Your task to perform on an android device: Open privacy settings Image 0: 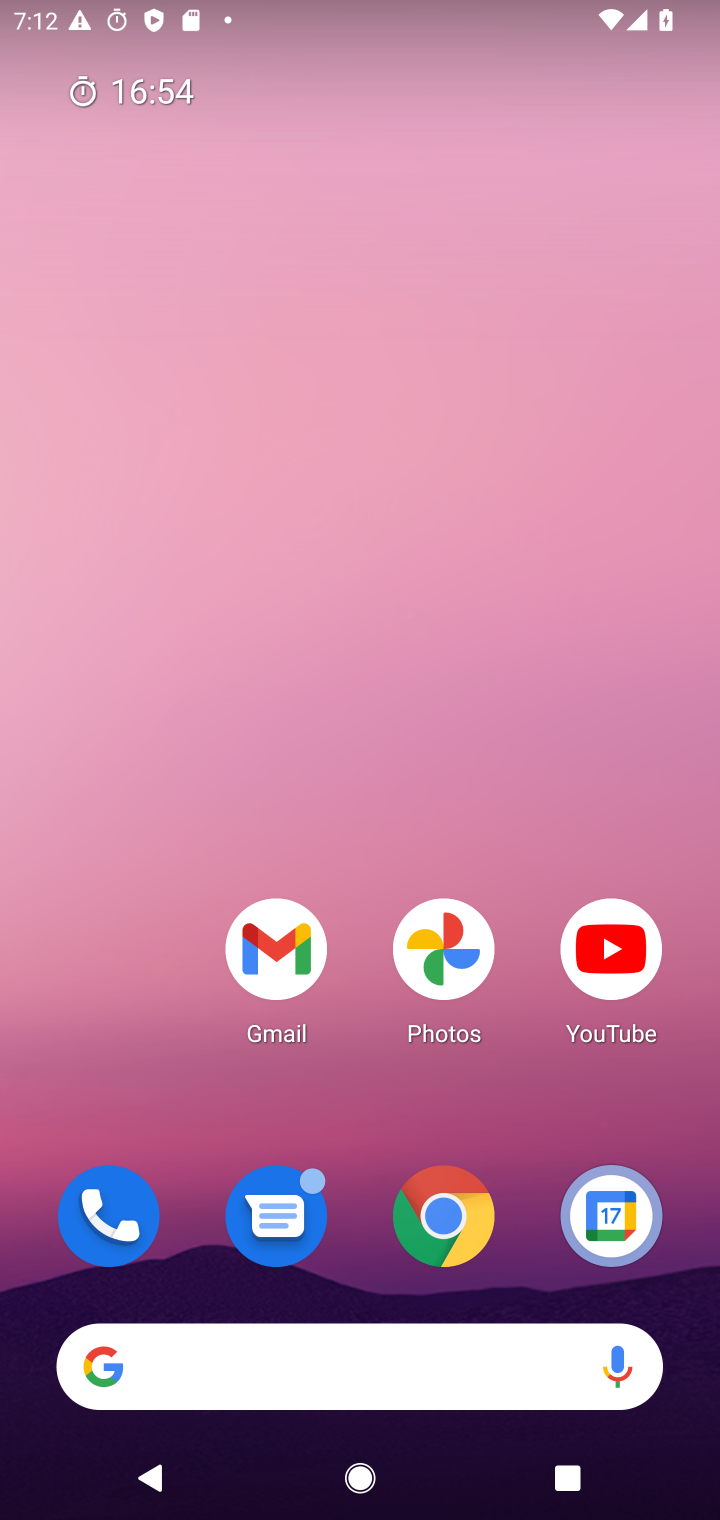
Step 0: drag from (528, 1008) to (508, 57)
Your task to perform on an android device: Open privacy settings Image 1: 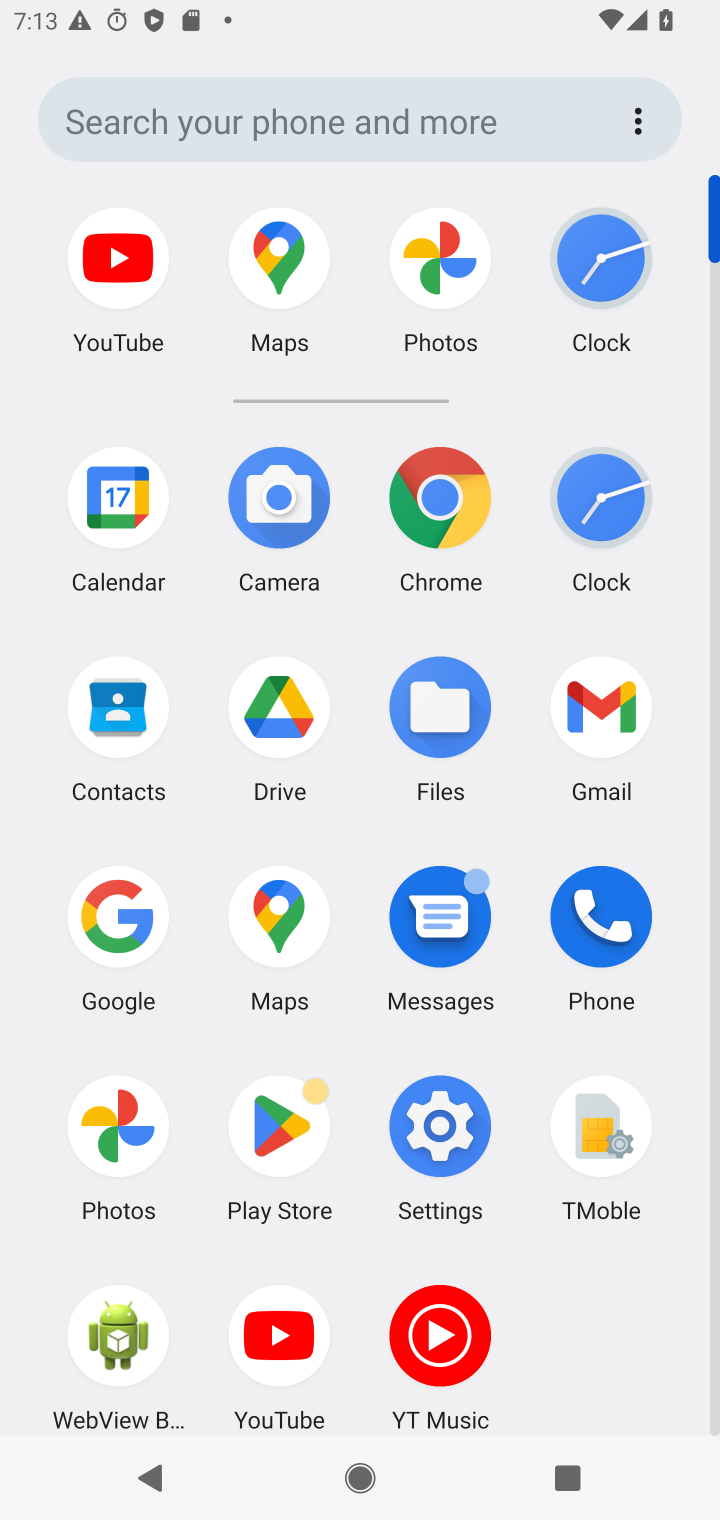
Step 1: click (450, 1112)
Your task to perform on an android device: Open privacy settings Image 2: 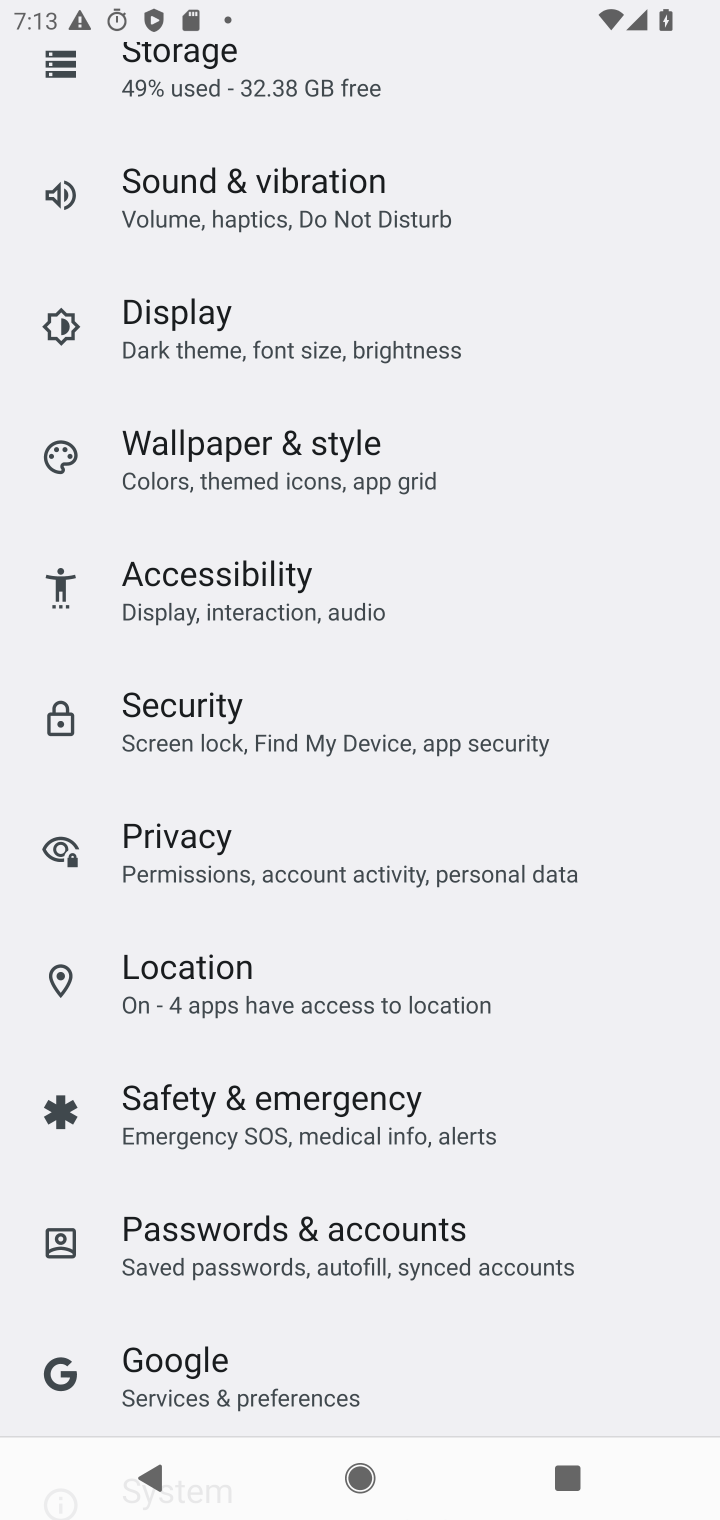
Step 2: click (201, 837)
Your task to perform on an android device: Open privacy settings Image 3: 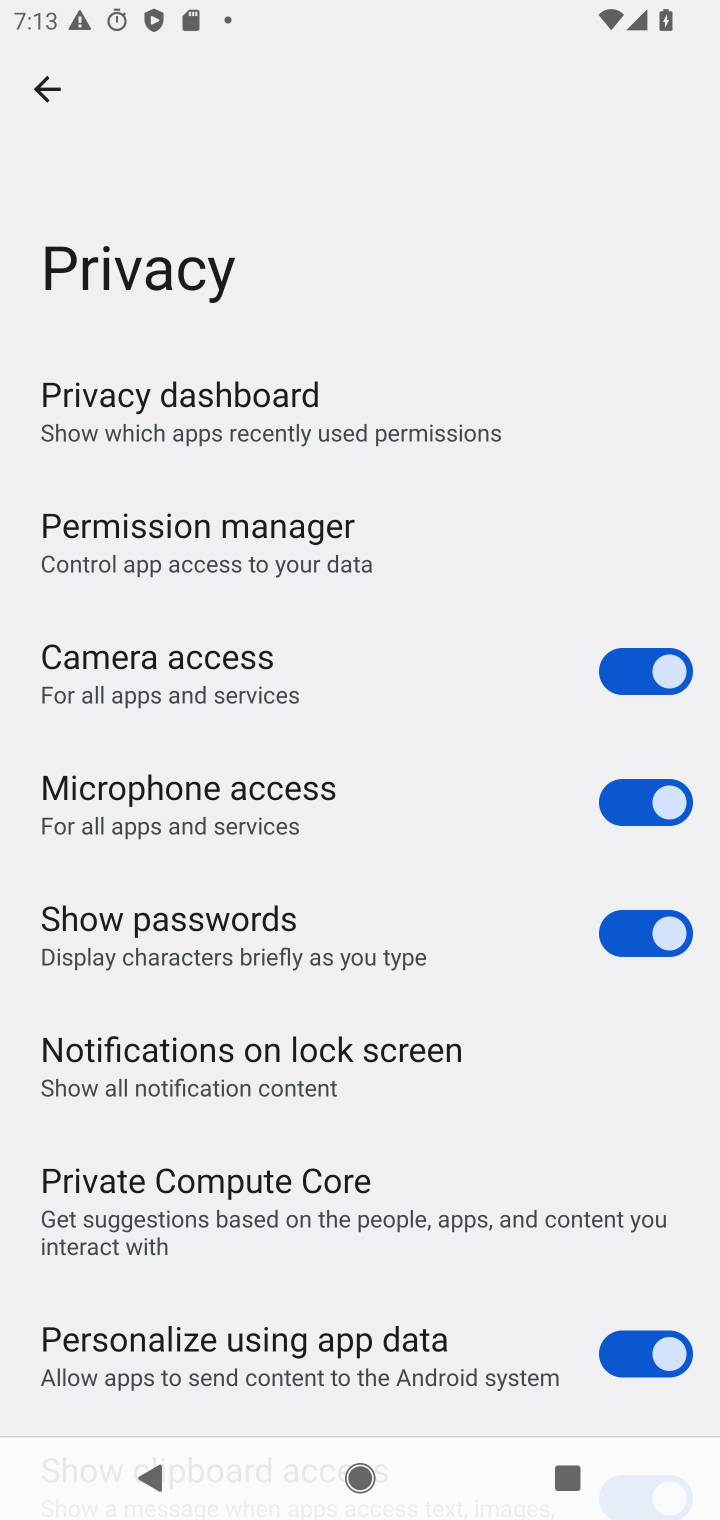
Step 3: task complete